Your task to perform on an android device: Open calendar and show me the third week of next month Image 0: 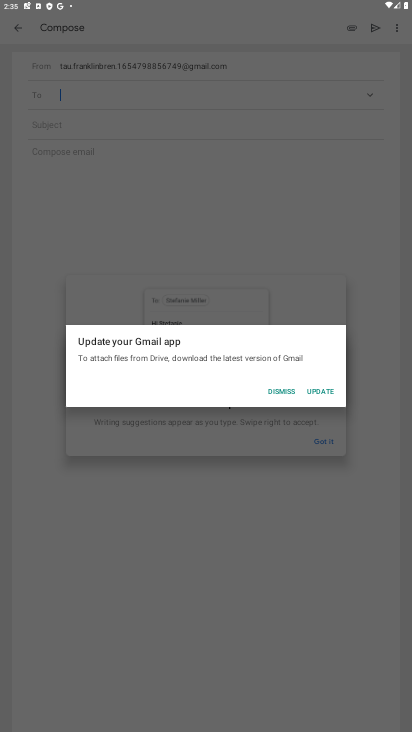
Step 0: press home button
Your task to perform on an android device: Open calendar and show me the third week of next month Image 1: 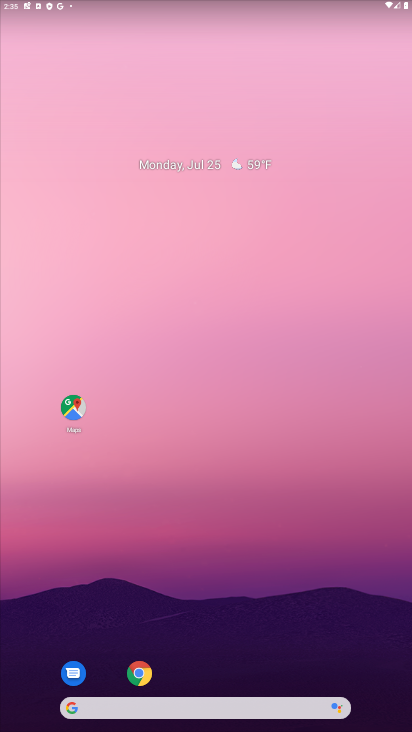
Step 1: click (192, 163)
Your task to perform on an android device: Open calendar and show me the third week of next month Image 2: 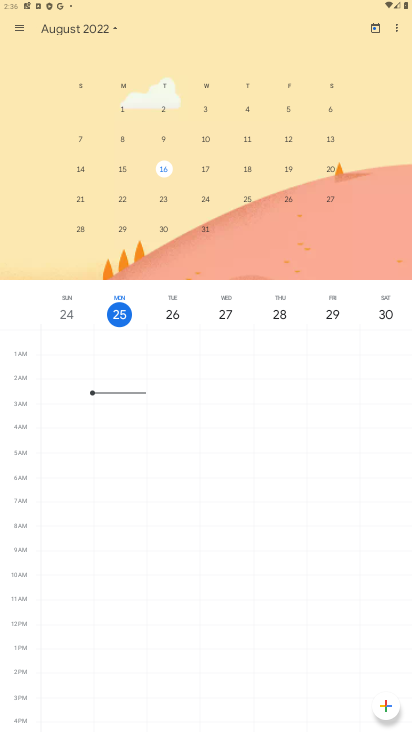
Step 2: drag from (394, 220) to (39, 225)
Your task to perform on an android device: Open calendar and show me the third week of next month Image 3: 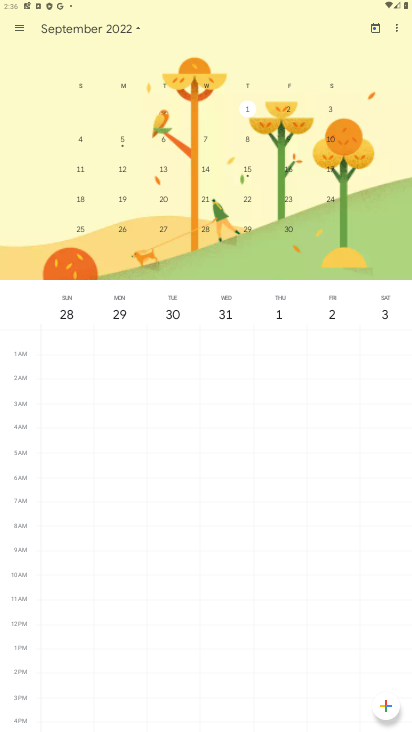
Step 3: click (117, 173)
Your task to perform on an android device: Open calendar and show me the third week of next month Image 4: 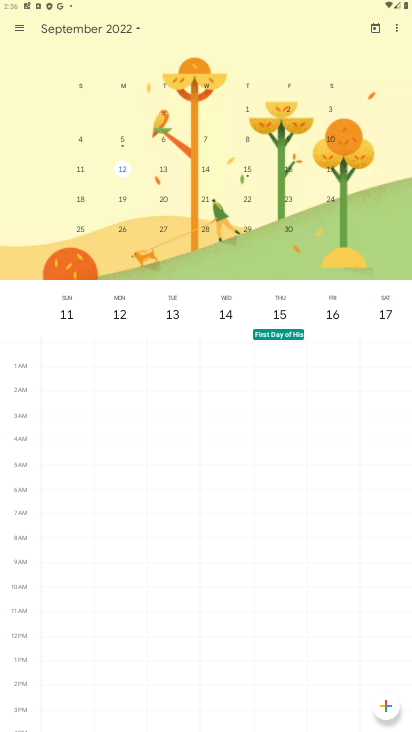
Step 4: task complete